Your task to perform on an android device: Open the calendar app, open the side menu, and click the "Day" option Image 0: 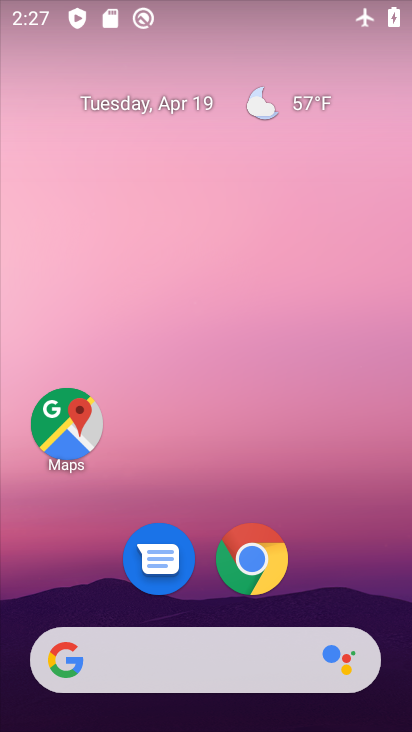
Step 0: drag from (378, 601) to (388, 113)
Your task to perform on an android device: Open the calendar app, open the side menu, and click the "Day" option Image 1: 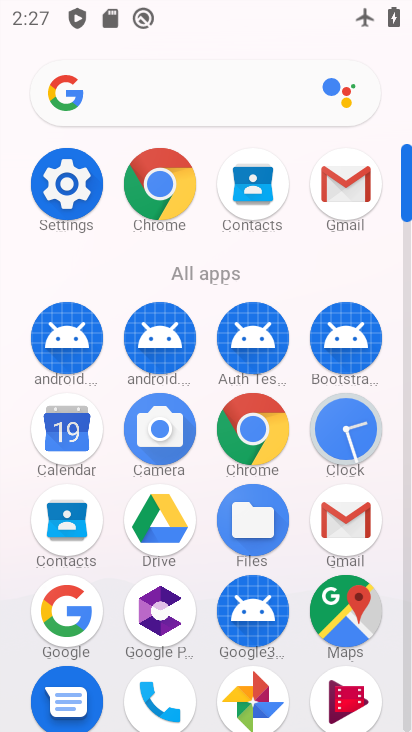
Step 1: click (68, 437)
Your task to perform on an android device: Open the calendar app, open the side menu, and click the "Day" option Image 2: 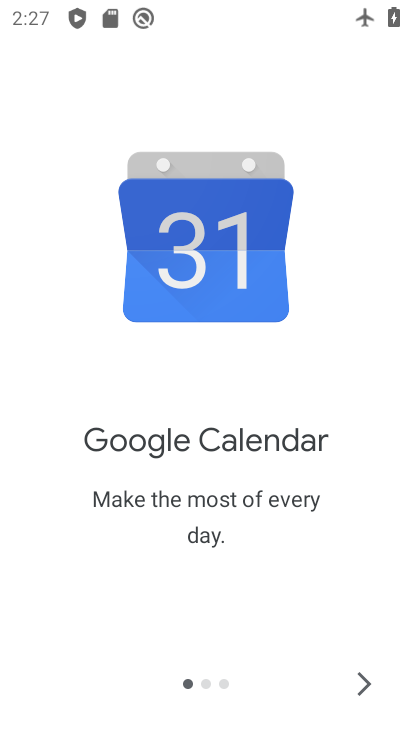
Step 2: click (366, 686)
Your task to perform on an android device: Open the calendar app, open the side menu, and click the "Day" option Image 3: 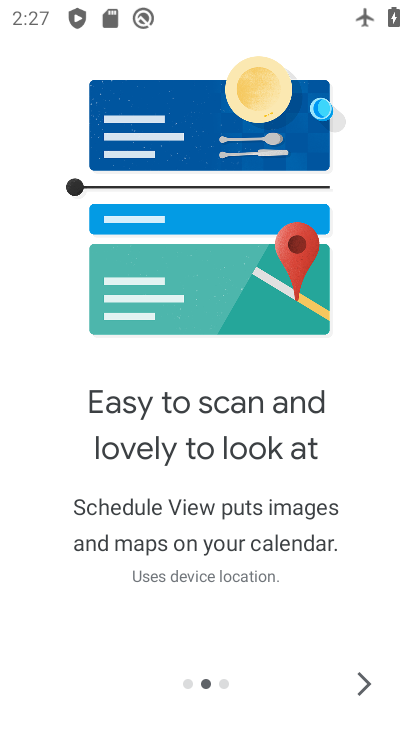
Step 3: click (367, 685)
Your task to perform on an android device: Open the calendar app, open the side menu, and click the "Day" option Image 4: 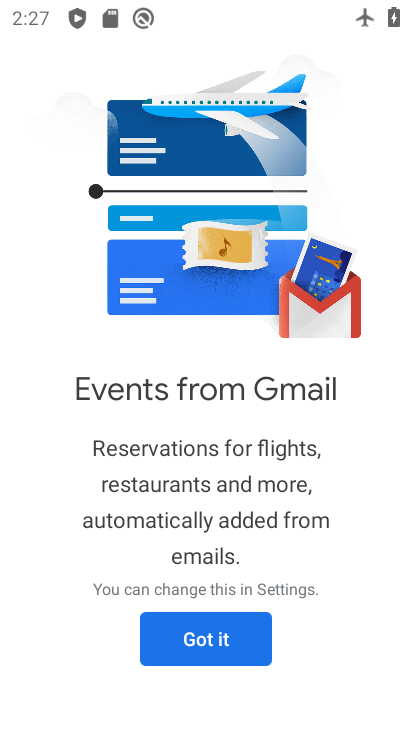
Step 4: click (218, 645)
Your task to perform on an android device: Open the calendar app, open the side menu, and click the "Day" option Image 5: 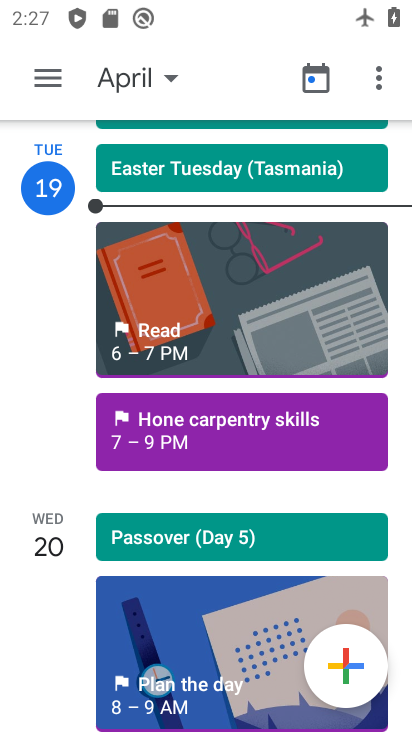
Step 5: click (54, 67)
Your task to perform on an android device: Open the calendar app, open the side menu, and click the "Day" option Image 6: 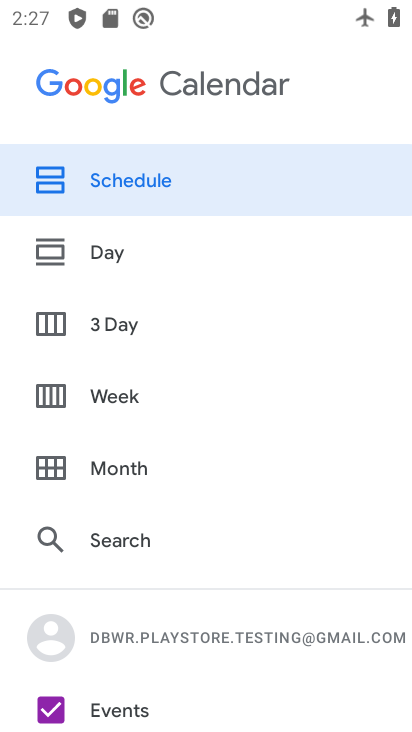
Step 6: drag from (312, 687) to (325, 385)
Your task to perform on an android device: Open the calendar app, open the side menu, and click the "Day" option Image 7: 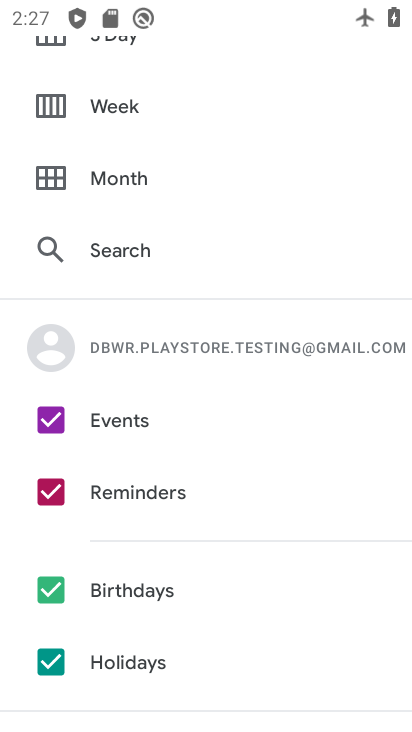
Step 7: drag from (311, 208) to (295, 477)
Your task to perform on an android device: Open the calendar app, open the side menu, and click the "Day" option Image 8: 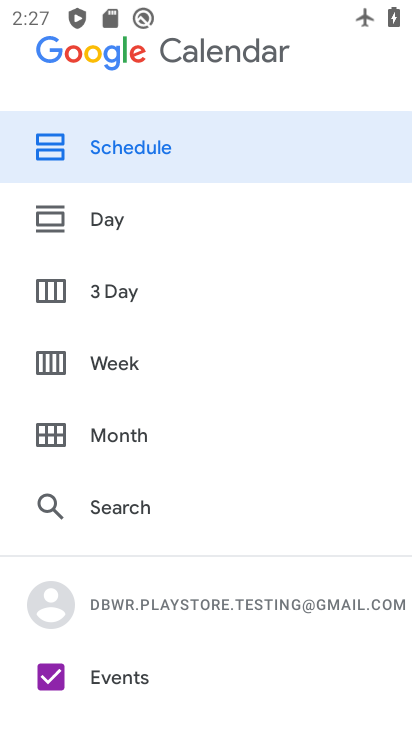
Step 8: drag from (297, 256) to (279, 462)
Your task to perform on an android device: Open the calendar app, open the side menu, and click the "Day" option Image 9: 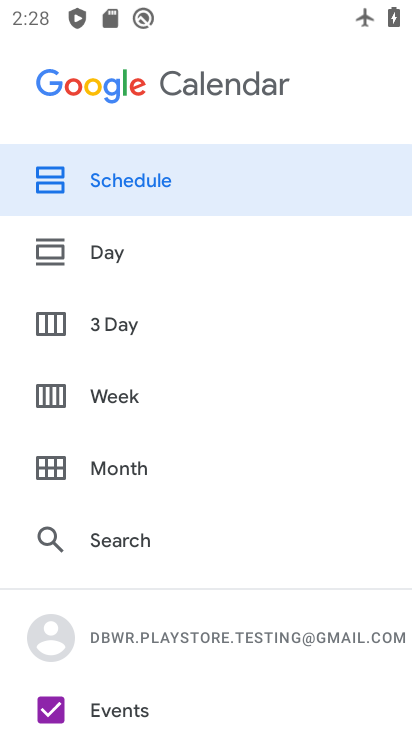
Step 9: click (111, 247)
Your task to perform on an android device: Open the calendar app, open the side menu, and click the "Day" option Image 10: 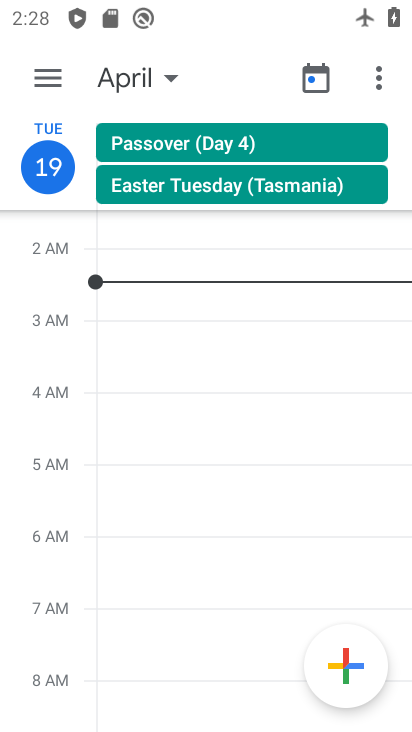
Step 10: task complete